Your task to perform on an android device: turn pop-ups off in chrome Image 0: 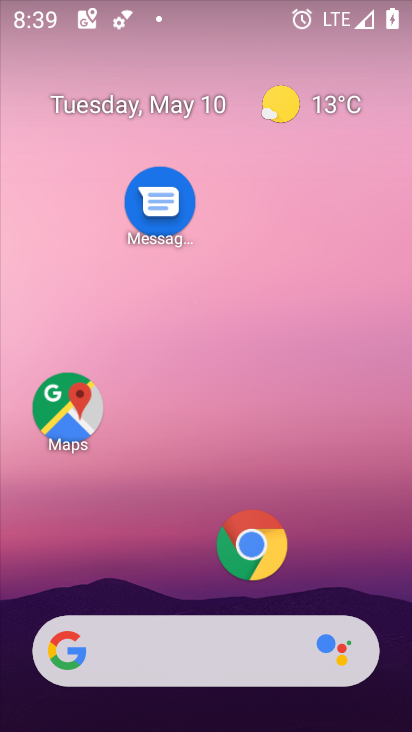
Step 0: click (251, 534)
Your task to perform on an android device: turn pop-ups off in chrome Image 1: 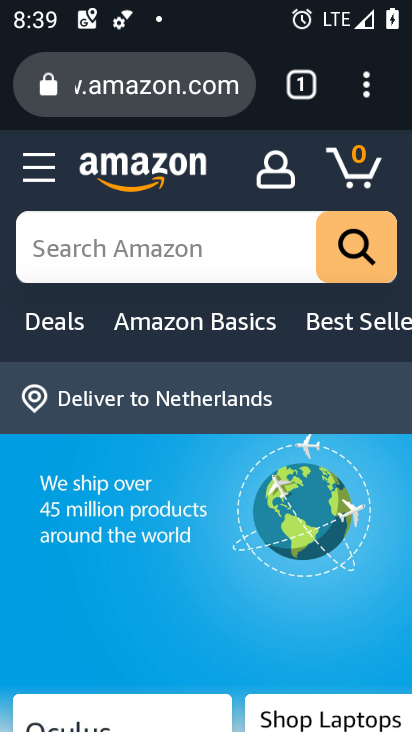
Step 1: click (365, 84)
Your task to perform on an android device: turn pop-ups off in chrome Image 2: 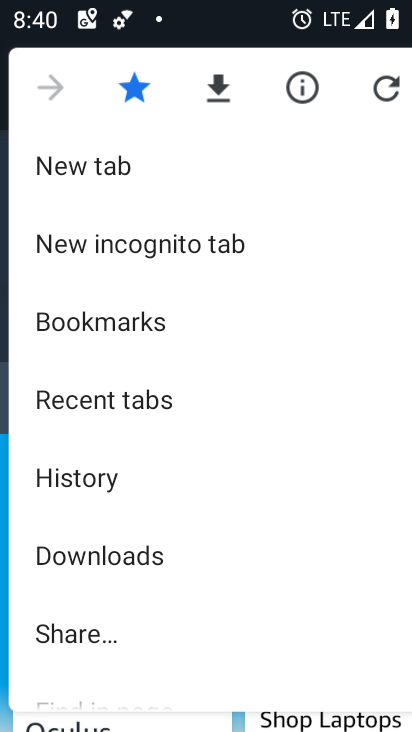
Step 2: drag from (159, 635) to (240, 123)
Your task to perform on an android device: turn pop-ups off in chrome Image 3: 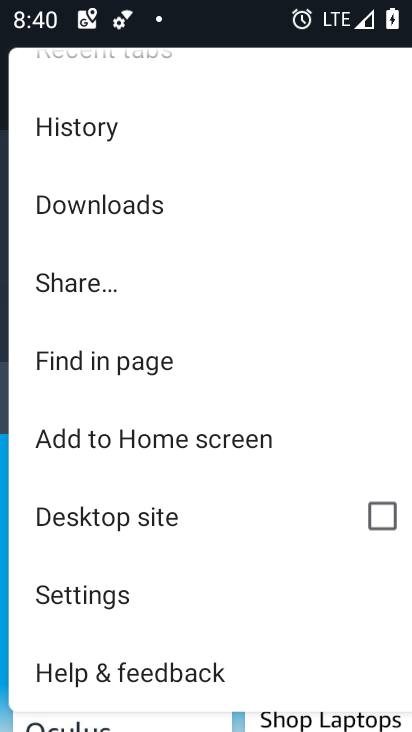
Step 3: click (143, 589)
Your task to perform on an android device: turn pop-ups off in chrome Image 4: 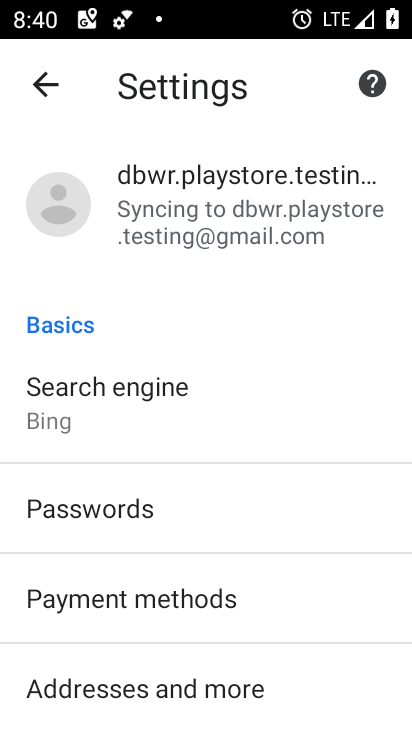
Step 4: drag from (271, 671) to (274, 271)
Your task to perform on an android device: turn pop-ups off in chrome Image 5: 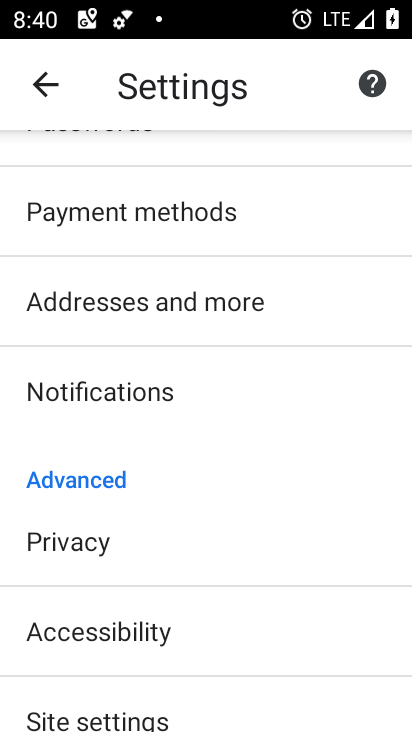
Step 5: drag from (222, 688) to (238, 237)
Your task to perform on an android device: turn pop-ups off in chrome Image 6: 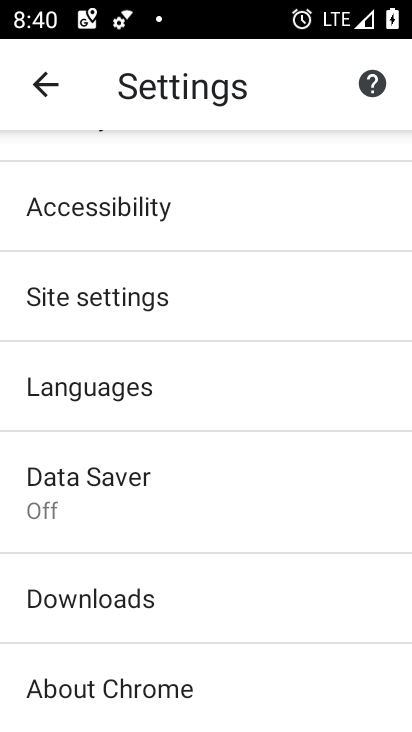
Step 6: click (194, 295)
Your task to perform on an android device: turn pop-ups off in chrome Image 7: 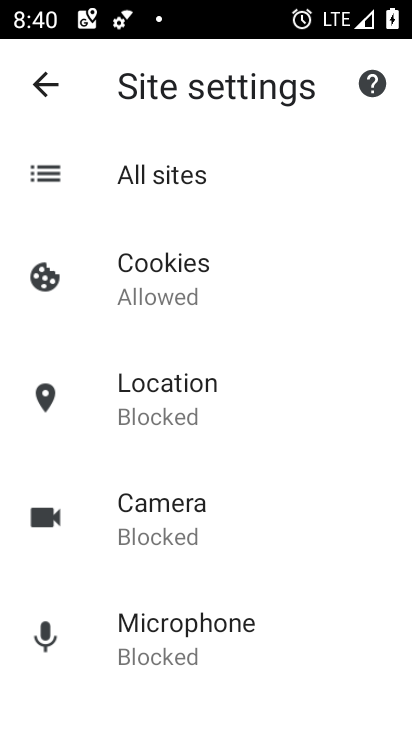
Step 7: drag from (224, 639) to (231, 69)
Your task to perform on an android device: turn pop-ups off in chrome Image 8: 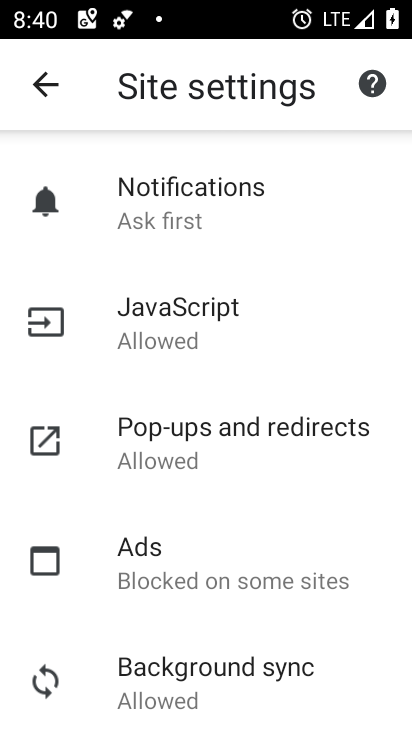
Step 8: click (93, 444)
Your task to perform on an android device: turn pop-ups off in chrome Image 9: 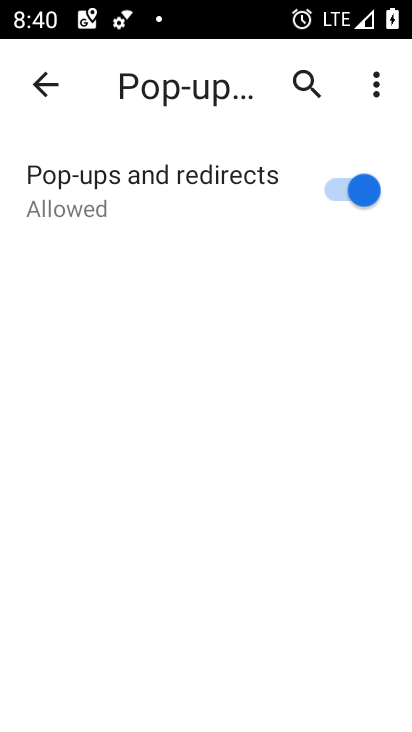
Step 9: click (340, 185)
Your task to perform on an android device: turn pop-ups off in chrome Image 10: 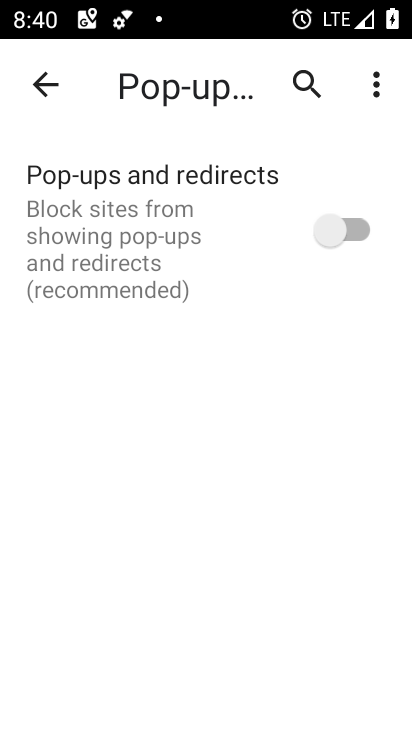
Step 10: task complete